Your task to perform on an android device: Go to Android settings Image 0: 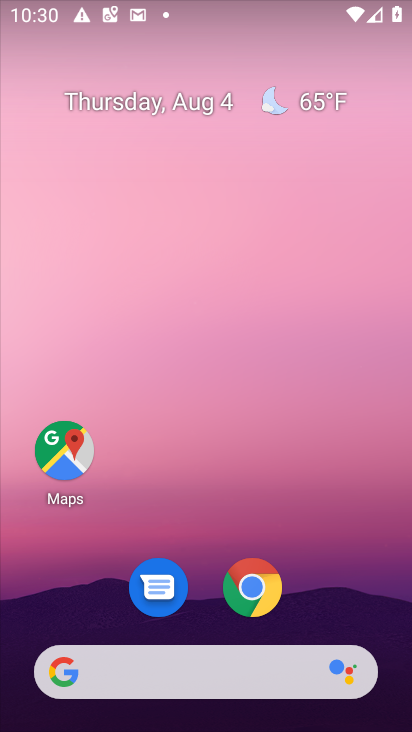
Step 0: drag from (253, 584) to (248, 363)
Your task to perform on an android device: Go to Android settings Image 1: 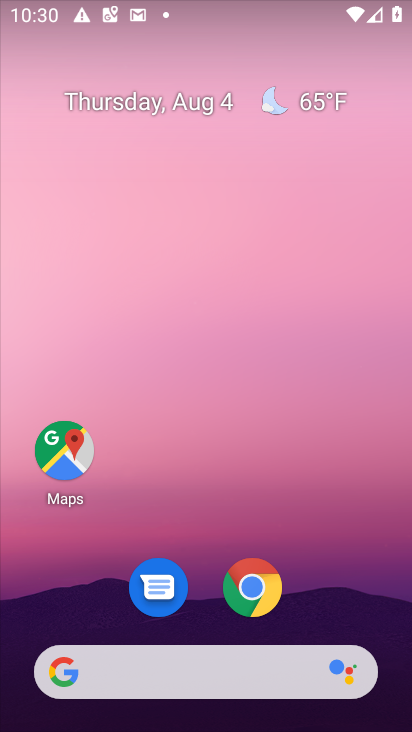
Step 1: drag from (177, 590) to (200, 206)
Your task to perform on an android device: Go to Android settings Image 2: 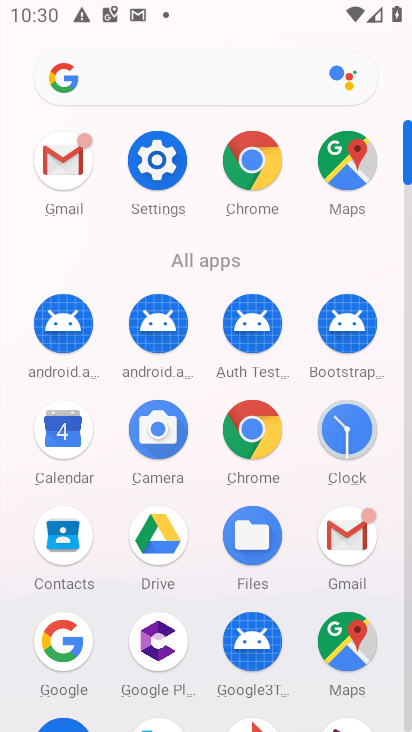
Step 2: click (163, 164)
Your task to perform on an android device: Go to Android settings Image 3: 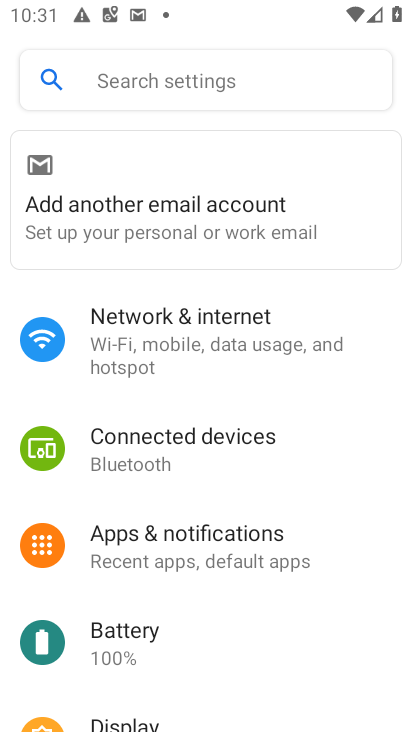
Step 3: task complete